Your task to perform on an android device: delete location history Image 0: 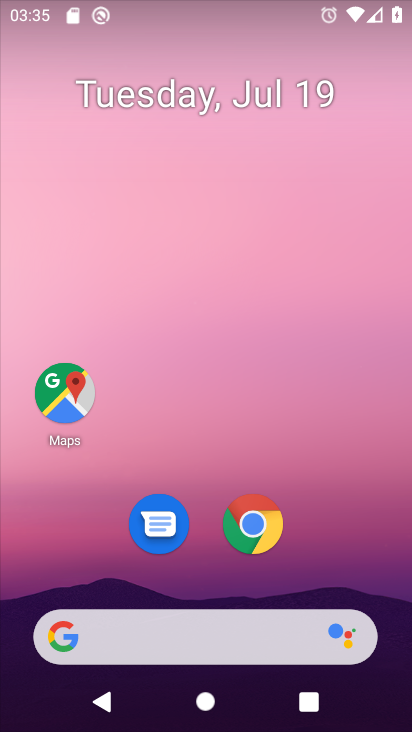
Step 0: drag from (317, 504) to (288, 92)
Your task to perform on an android device: delete location history Image 1: 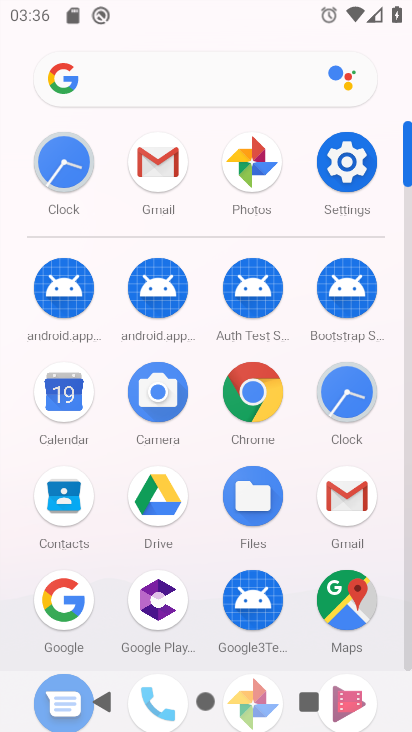
Step 1: click (351, 591)
Your task to perform on an android device: delete location history Image 2: 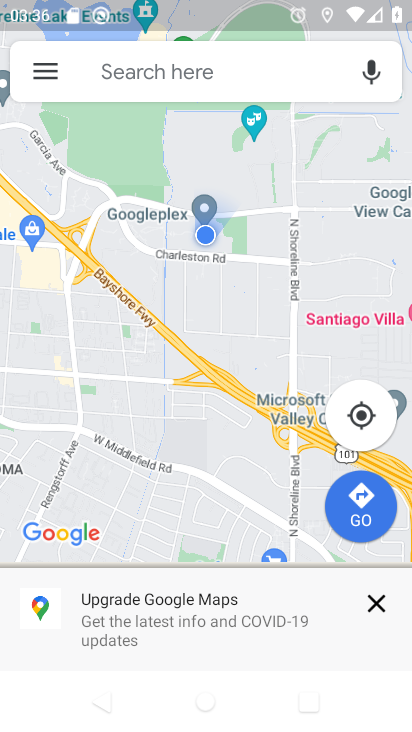
Step 2: click (49, 65)
Your task to perform on an android device: delete location history Image 3: 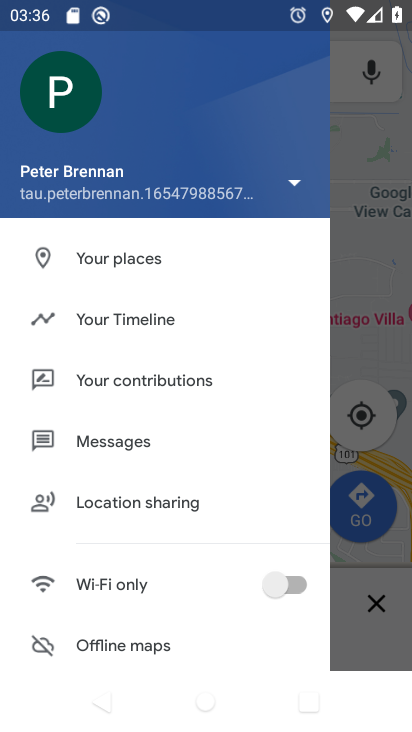
Step 3: click (97, 308)
Your task to perform on an android device: delete location history Image 4: 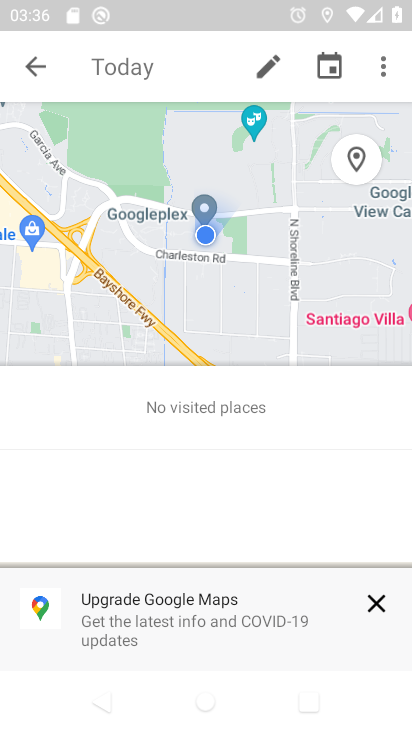
Step 4: click (383, 74)
Your task to perform on an android device: delete location history Image 5: 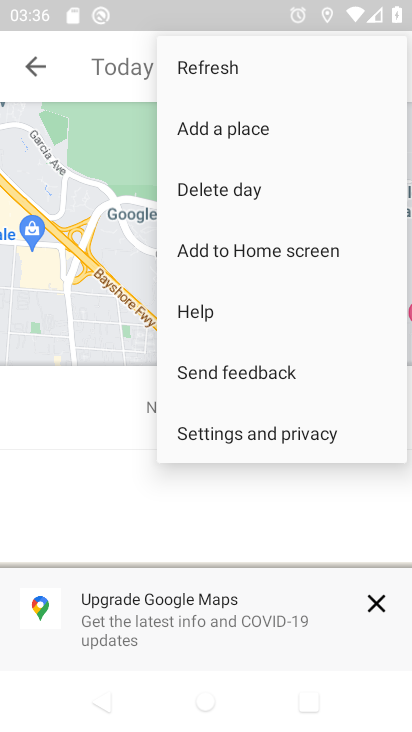
Step 5: click (256, 420)
Your task to perform on an android device: delete location history Image 6: 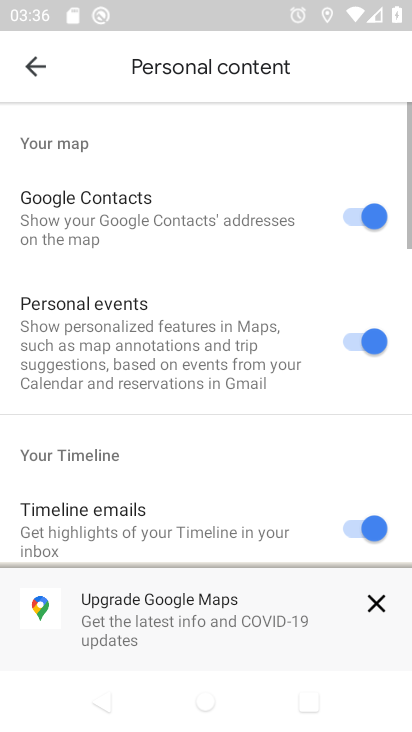
Step 6: drag from (279, 471) to (255, 38)
Your task to perform on an android device: delete location history Image 7: 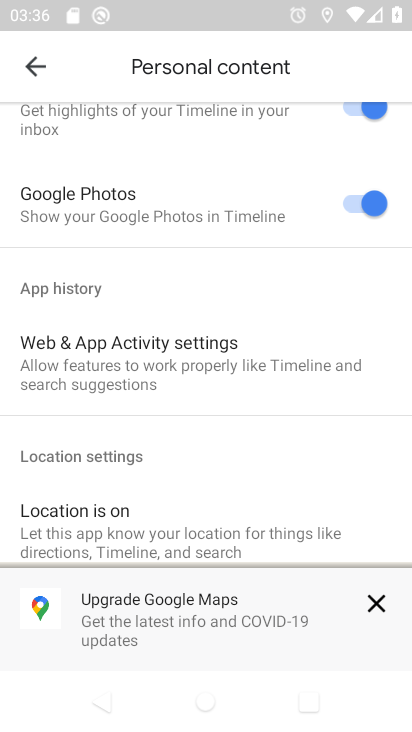
Step 7: drag from (211, 480) to (208, 143)
Your task to perform on an android device: delete location history Image 8: 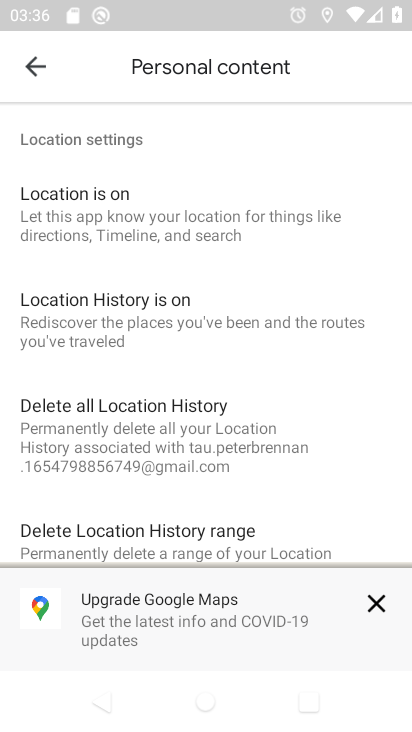
Step 8: click (228, 422)
Your task to perform on an android device: delete location history Image 9: 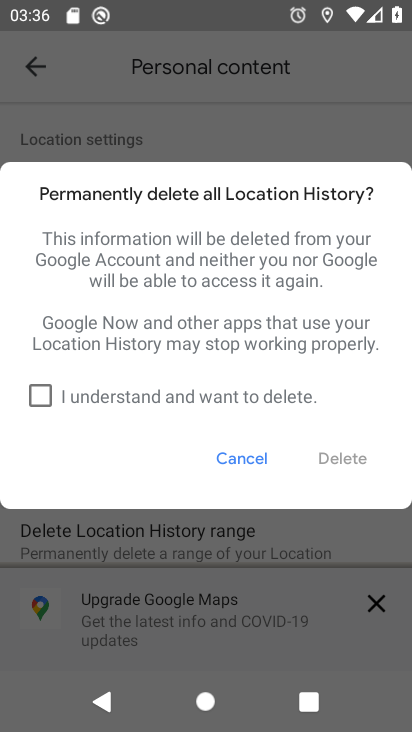
Step 9: click (37, 390)
Your task to perform on an android device: delete location history Image 10: 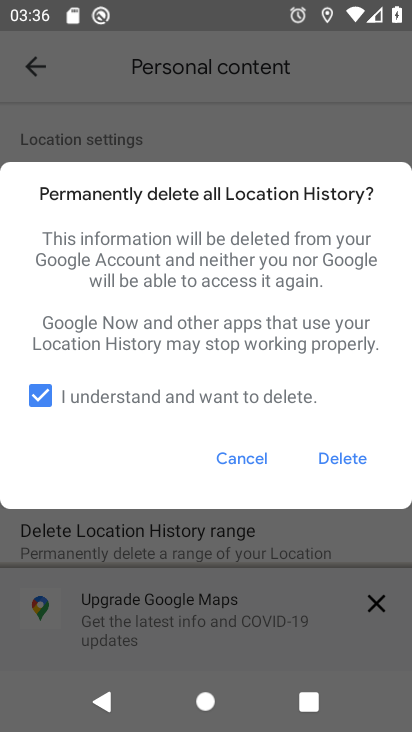
Step 10: click (339, 450)
Your task to perform on an android device: delete location history Image 11: 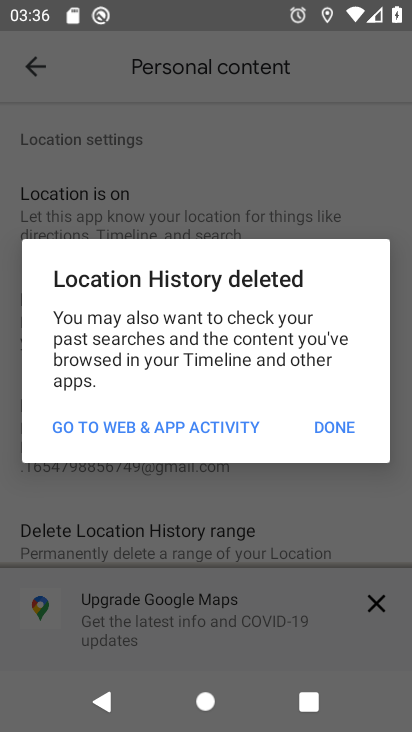
Step 11: click (338, 419)
Your task to perform on an android device: delete location history Image 12: 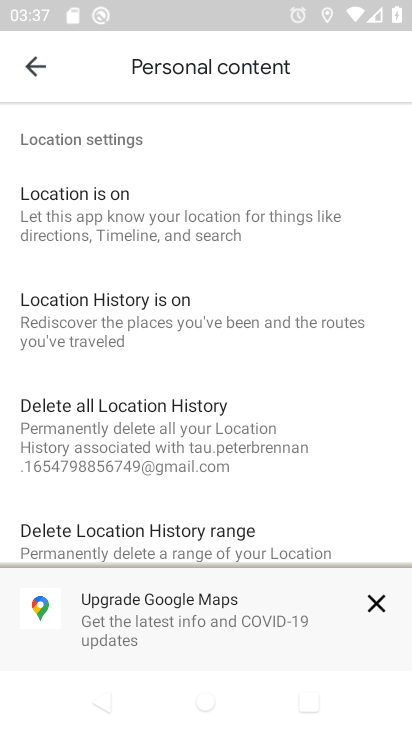
Step 12: task complete